Your task to perform on an android device: toggle location history Image 0: 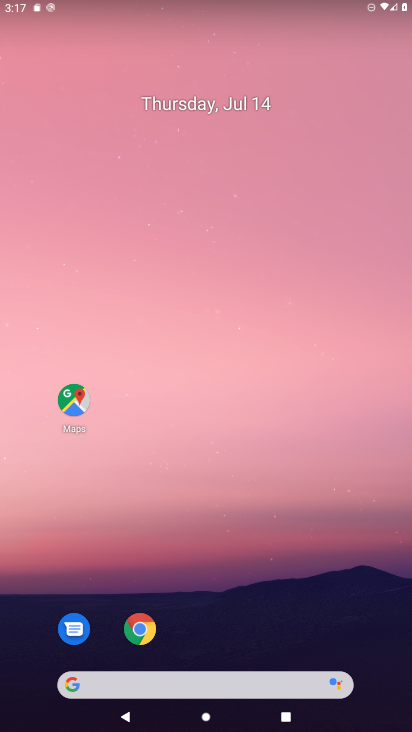
Step 0: drag from (200, 654) to (194, 38)
Your task to perform on an android device: toggle location history Image 1: 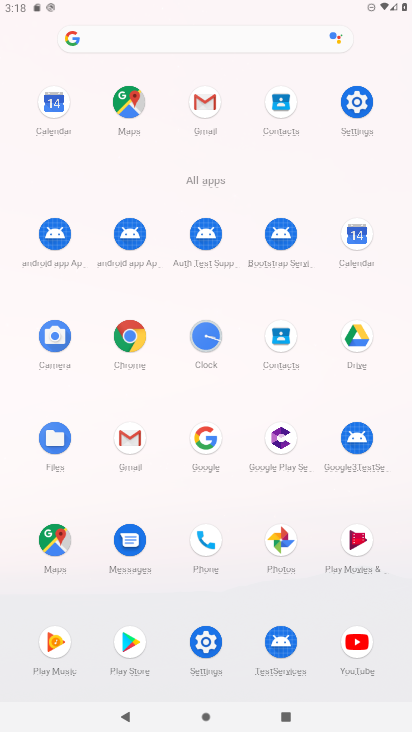
Step 1: click (356, 100)
Your task to perform on an android device: toggle location history Image 2: 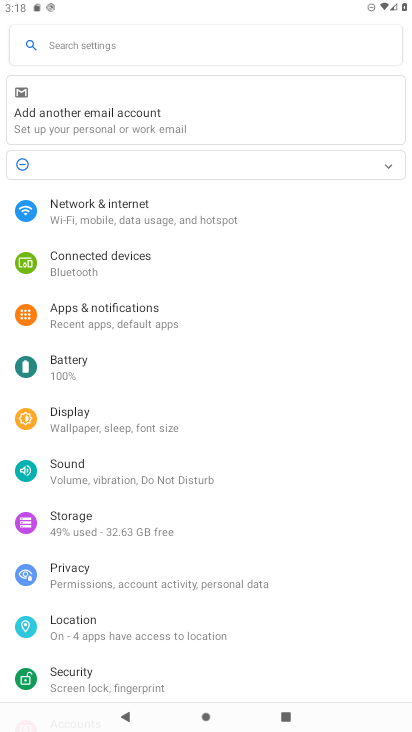
Step 2: drag from (193, 663) to (213, 272)
Your task to perform on an android device: toggle location history Image 3: 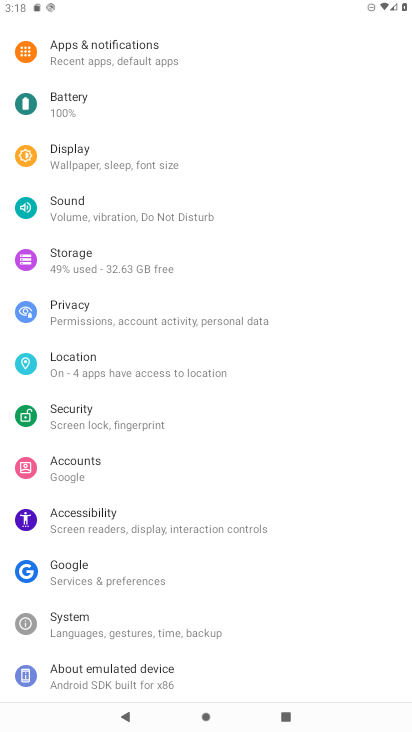
Step 3: click (136, 361)
Your task to perform on an android device: toggle location history Image 4: 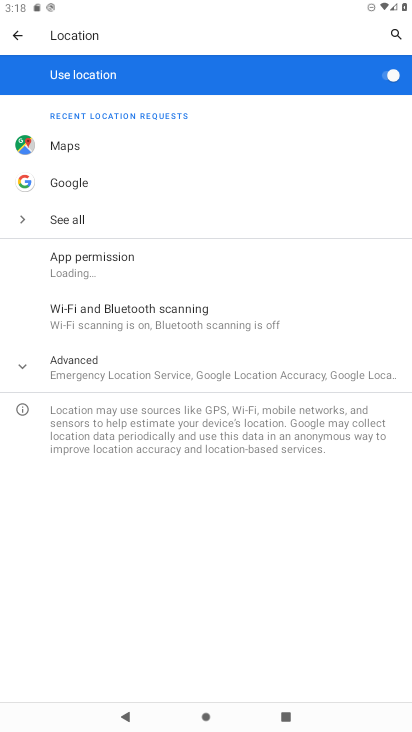
Step 4: click (25, 365)
Your task to perform on an android device: toggle location history Image 5: 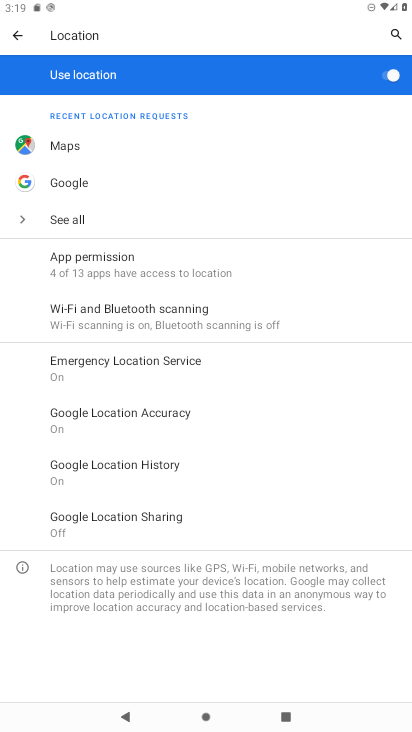
Step 5: click (165, 466)
Your task to perform on an android device: toggle location history Image 6: 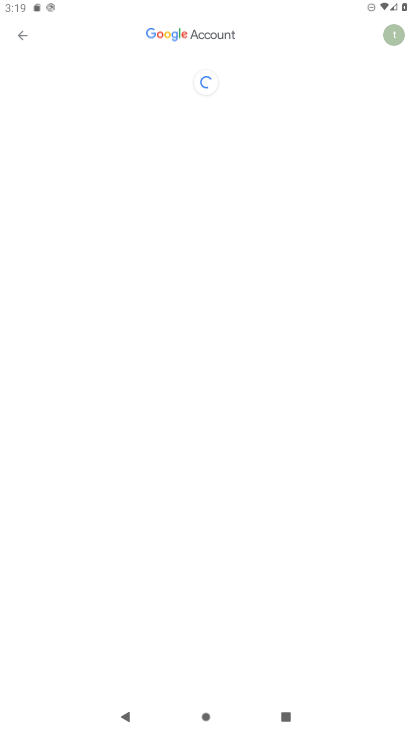
Step 6: task complete